Your task to perform on an android device: Open Google Chrome and click the shortcut for Amazon.com Image 0: 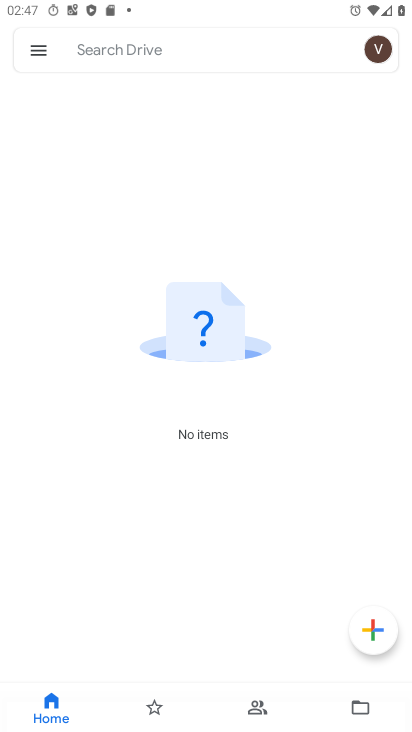
Step 0: press home button
Your task to perform on an android device: Open Google Chrome and click the shortcut for Amazon.com Image 1: 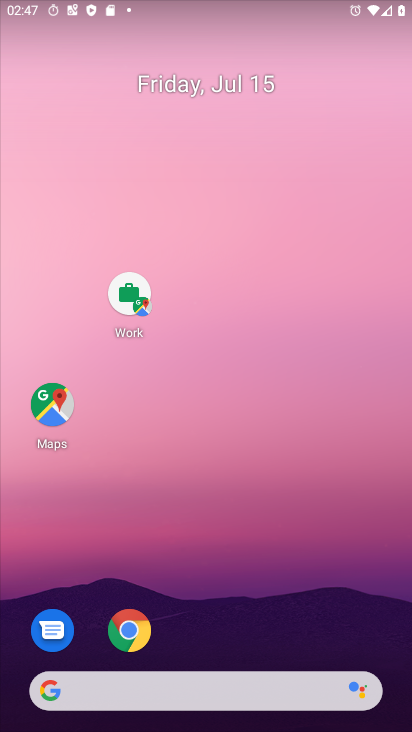
Step 1: click (130, 619)
Your task to perform on an android device: Open Google Chrome and click the shortcut for Amazon.com Image 2: 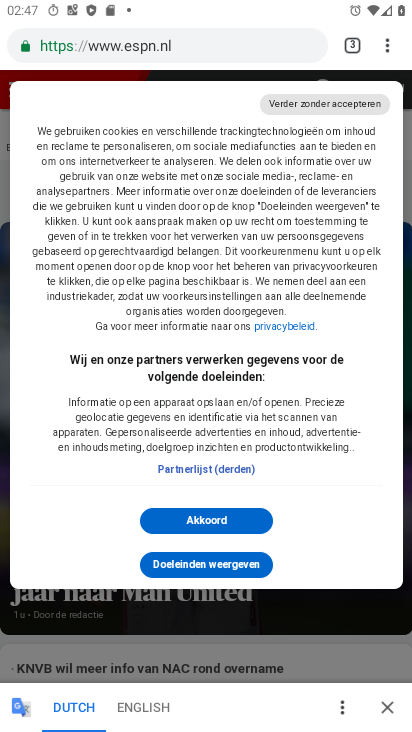
Step 2: click (381, 45)
Your task to perform on an android device: Open Google Chrome and click the shortcut for Amazon.com Image 3: 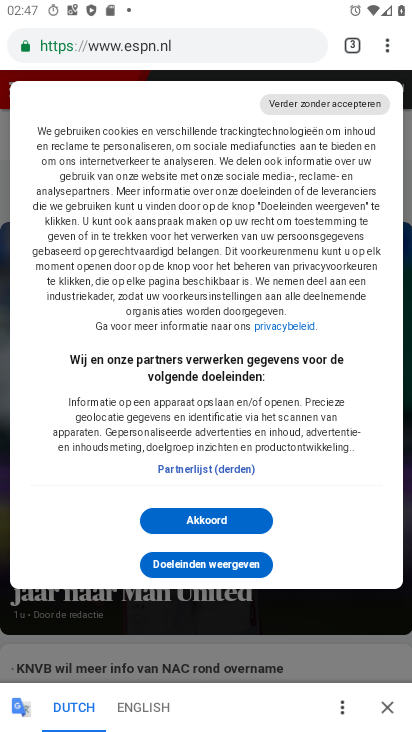
Step 3: click (358, 48)
Your task to perform on an android device: Open Google Chrome and click the shortcut for Amazon.com Image 4: 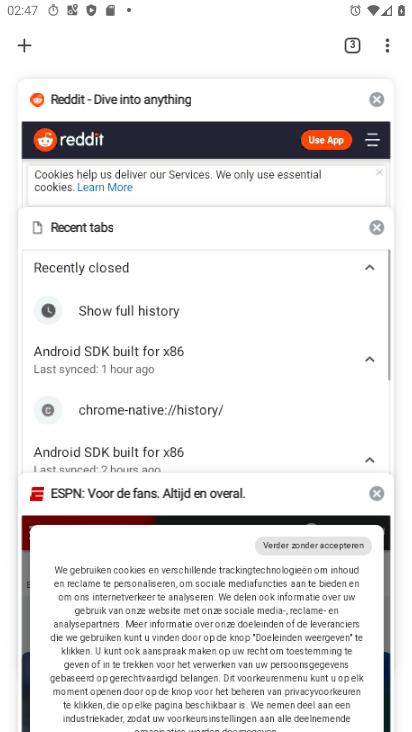
Step 4: click (25, 38)
Your task to perform on an android device: Open Google Chrome and click the shortcut for Amazon.com Image 5: 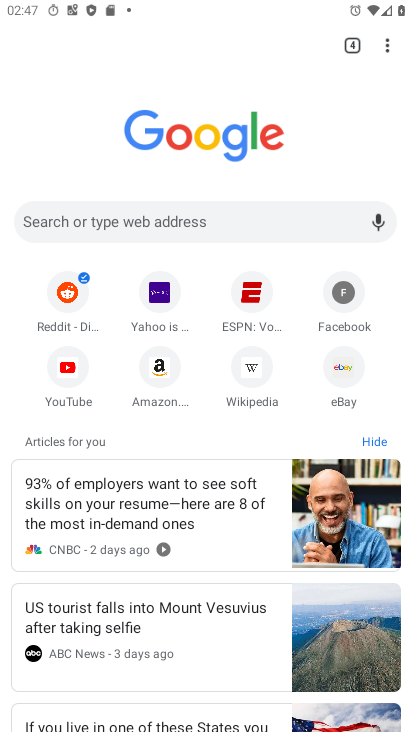
Step 5: click (163, 367)
Your task to perform on an android device: Open Google Chrome and click the shortcut for Amazon.com Image 6: 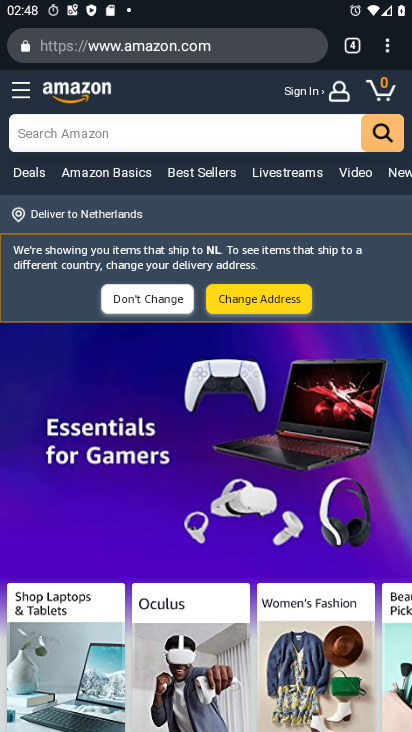
Step 6: task complete